Your task to perform on an android device: Show me recent news Image 0: 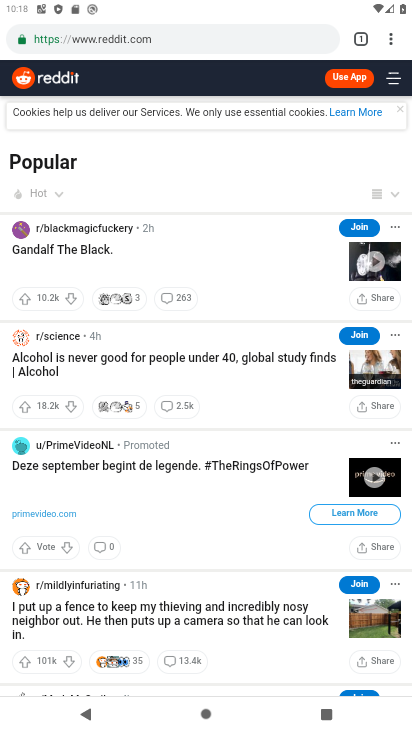
Step 0: press home button
Your task to perform on an android device: Show me recent news Image 1: 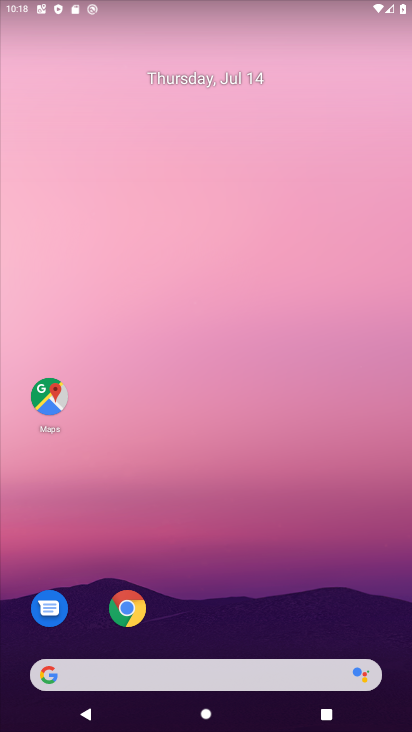
Step 1: drag from (185, 609) to (224, 56)
Your task to perform on an android device: Show me recent news Image 2: 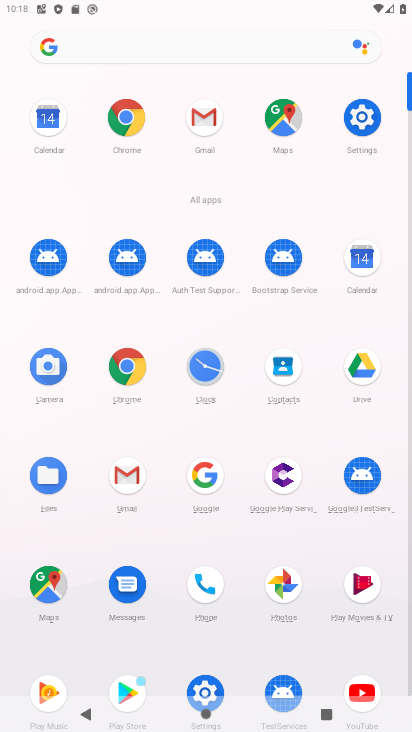
Step 2: click (198, 472)
Your task to perform on an android device: Show me recent news Image 3: 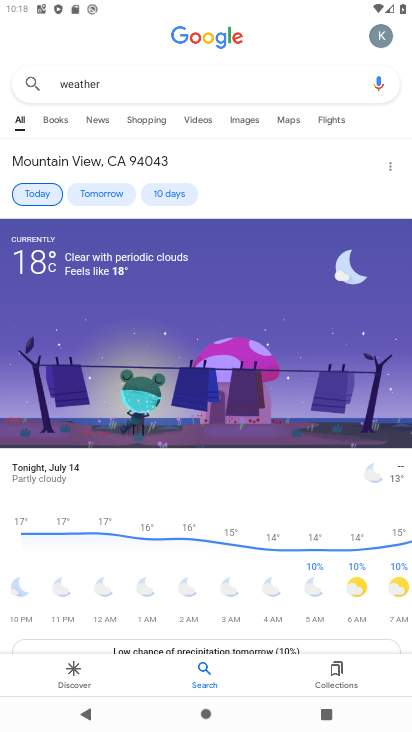
Step 3: click (109, 94)
Your task to perform on an android device: Show me recent news Image 4: 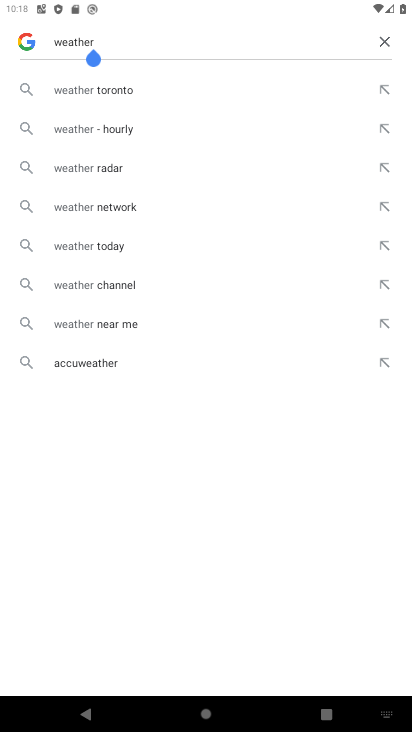
Step 4: click (387, 46)
Your task to perform on an android device: Show me recent news Image 5: 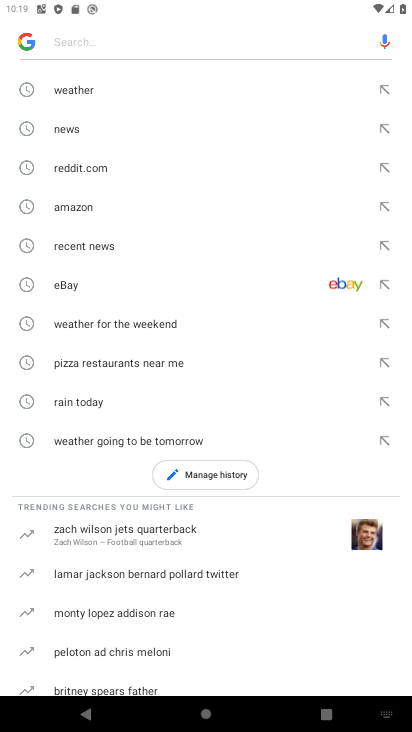
Step 5: click (101, 243)
Your task to perform on an android device: Show me recent news Image 6: 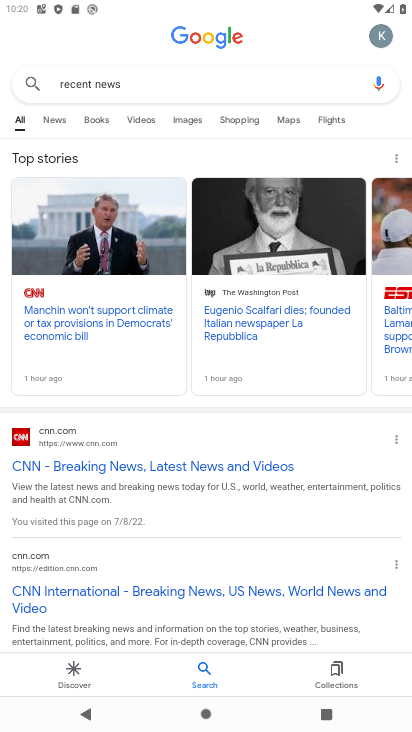
Step 6: task complete